Your task to perform on an android device: see creations saved in the google photos Image 0: 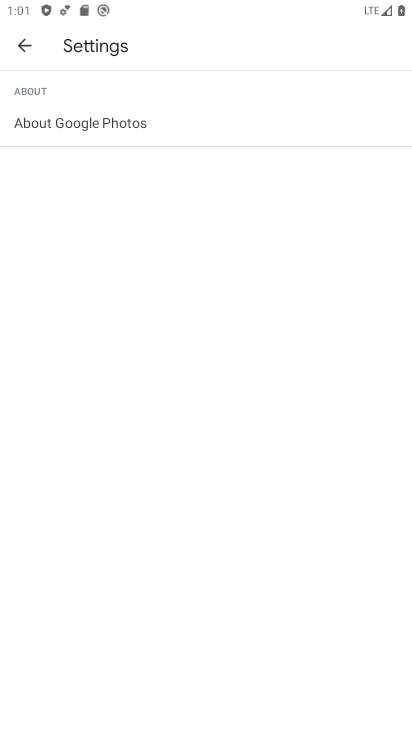
Step 0: press home button
Your task to perform on an android device: see creations saved in the google photos Image 1: 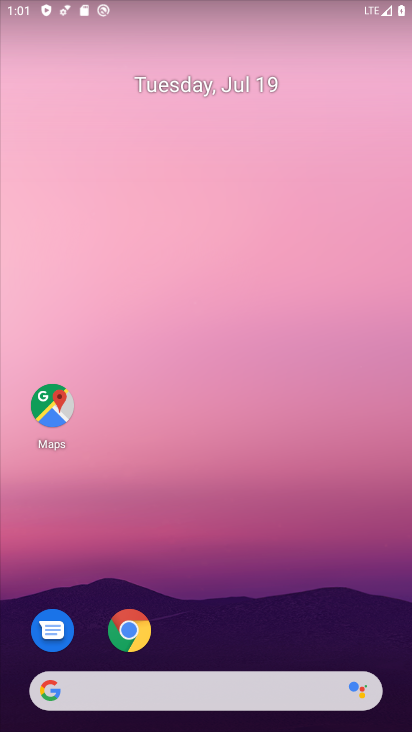
Step 1: drag from (194, 644) to (210, 290)
Your task to perform on an android device: see creations saved in the google photos Image 2: 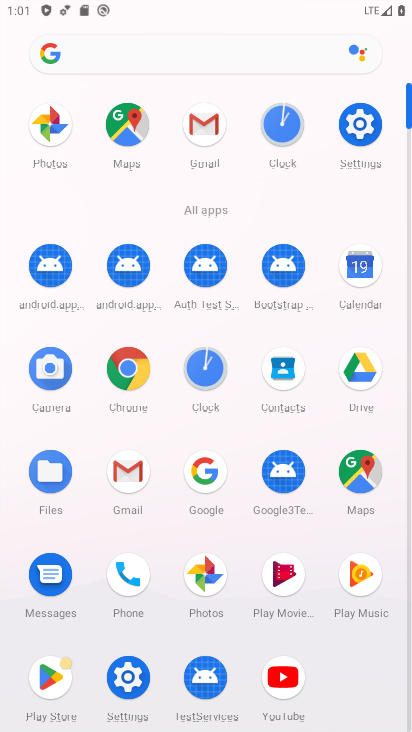
Step 2: click (196, 565)
Your task to perform on an android device: see creations saved in the google photos Image 3: 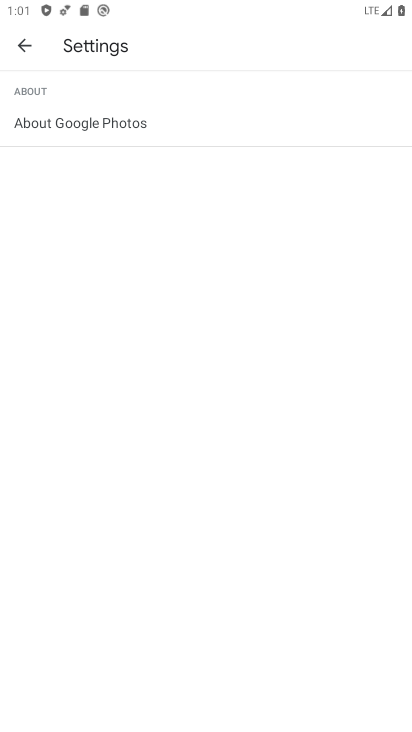
Step 3: press back button
Your task to perform on an android device: see creations saved in the google photos Image 4: 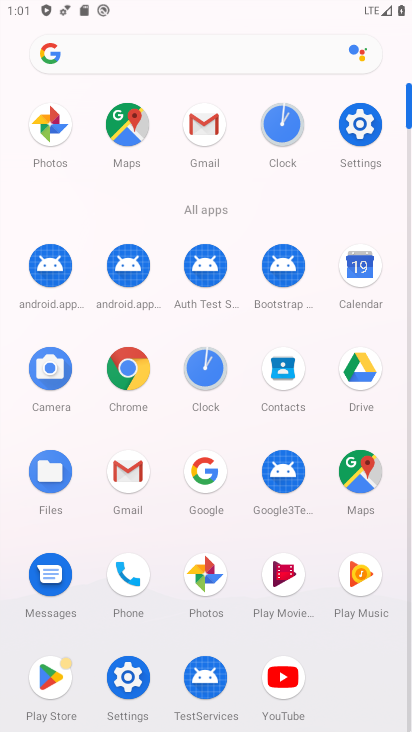
Step 4: click (193, 569)
Your task to perform on an android device: see creations saved in the google photos Image 5: 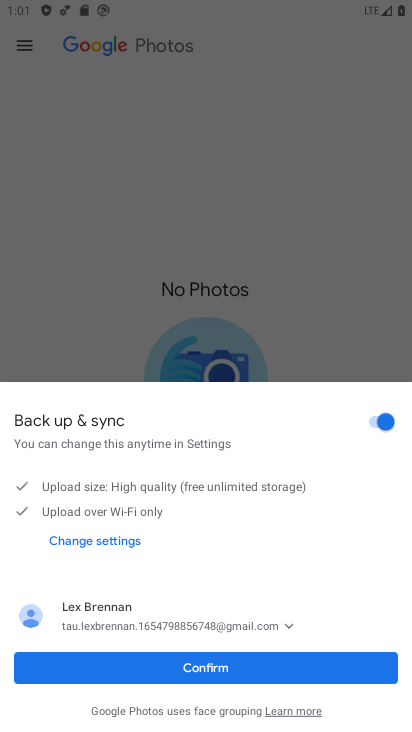
Step 5: click (188, 670)
Your task to perform on an android device: see creations saved in the google photos Image 6: 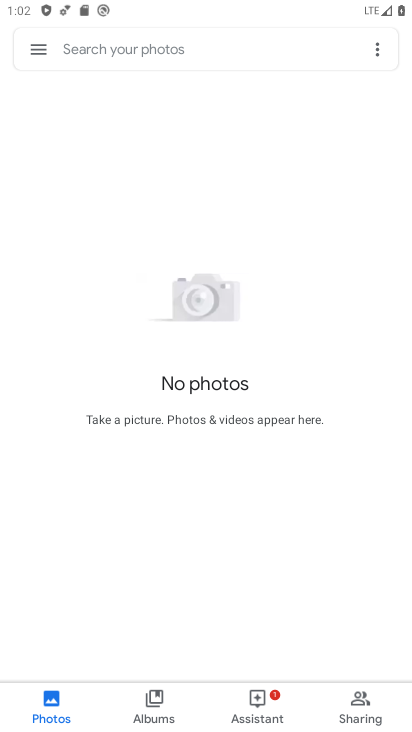
Step 6: click (188, 52)
Your task to perform on an android device: see creations saved in the google photos Image 7: 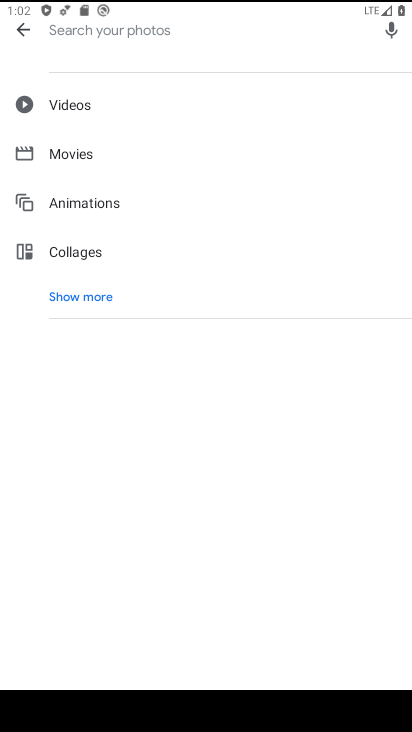
Step 7: click (100, 290)
Your task to perform on an android device: see creations saved in the google photos Image 8: 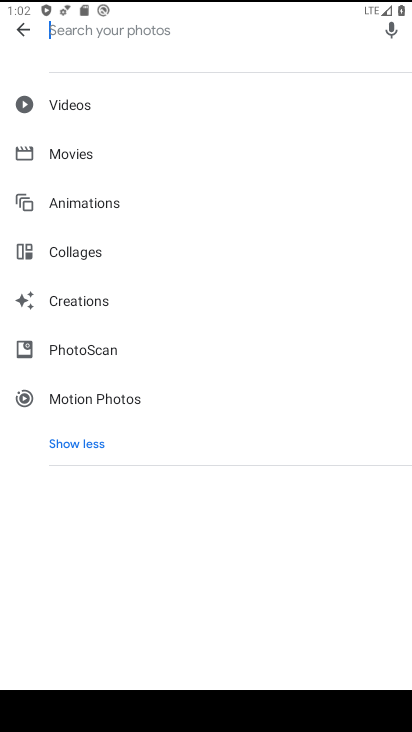
Step 8: click (93, 302)
Your task to perform on an android device: see creations saved in the google photos Image 9: 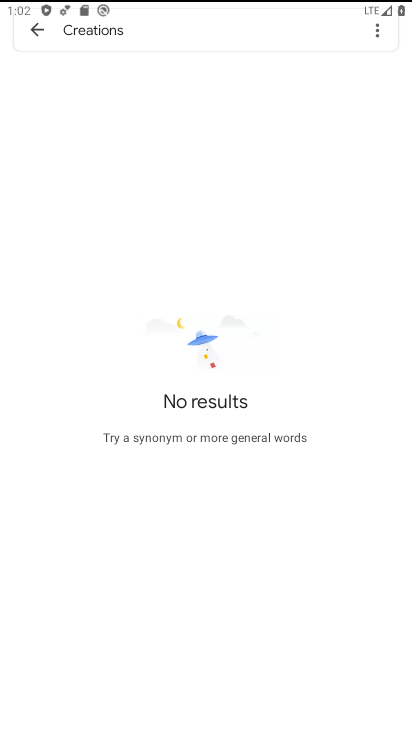
Step 9: task complete